Your task to perform on an android device: turn on priority inbox in the gmail app Image 0: 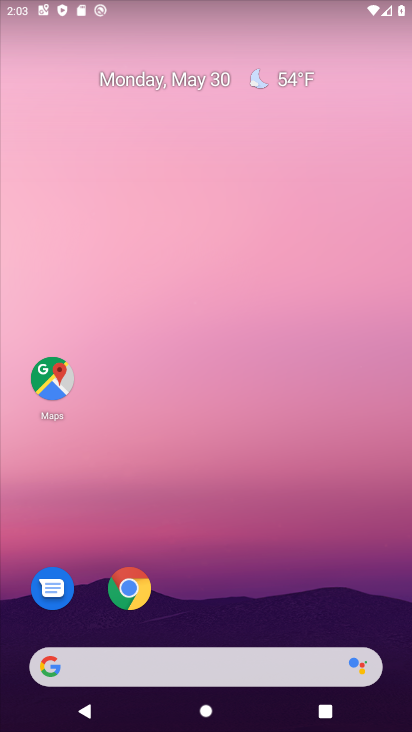
Step 0: drag from (219, 596) to (230, 2)
Your task to perform on an android device: turn on priority inbox in the gmail app Image 1: 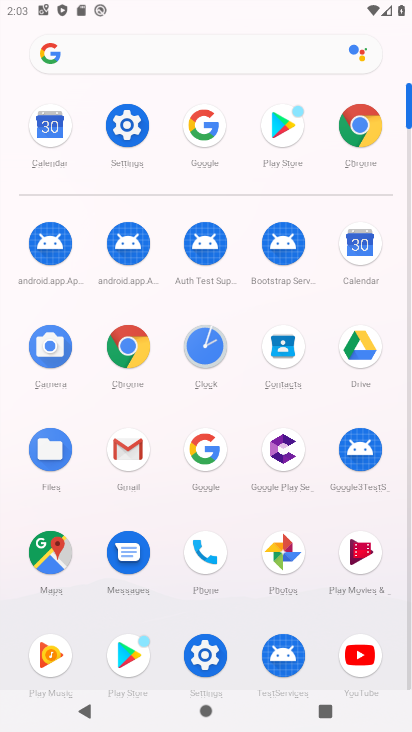
Step 1: click (127, 452)
Your task to perform on an android device: turn on priority inbox in the gmail app Image 2: 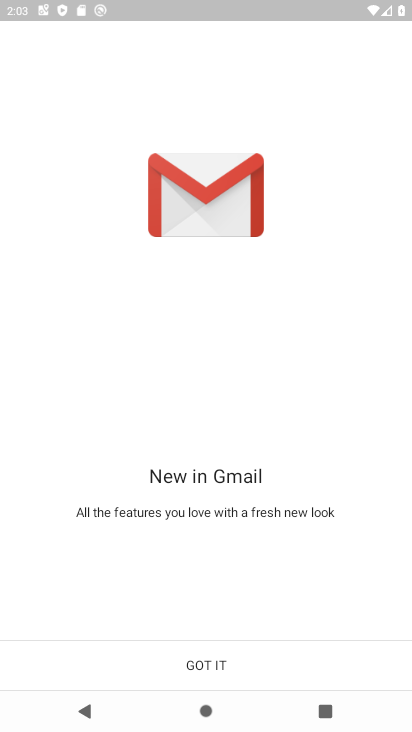
Step 2: click (228, 674)
Your task to perform on an android device: turn on priority inbox in the gmail app Image 3: 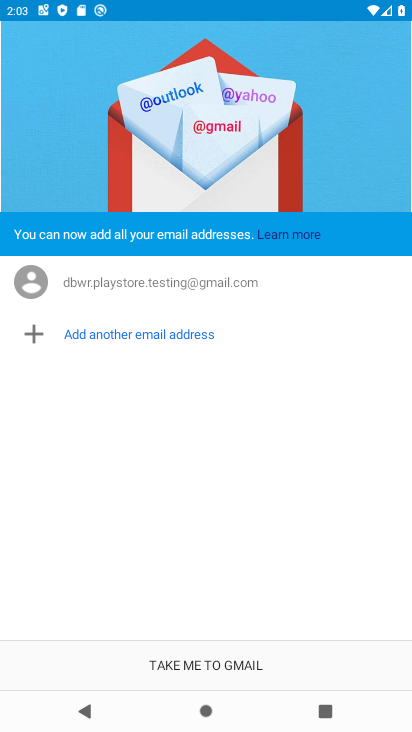
Step 3: click (219, 663)
Your task to perform on an android device: turn on priority inbox in the gmail app Image 4: 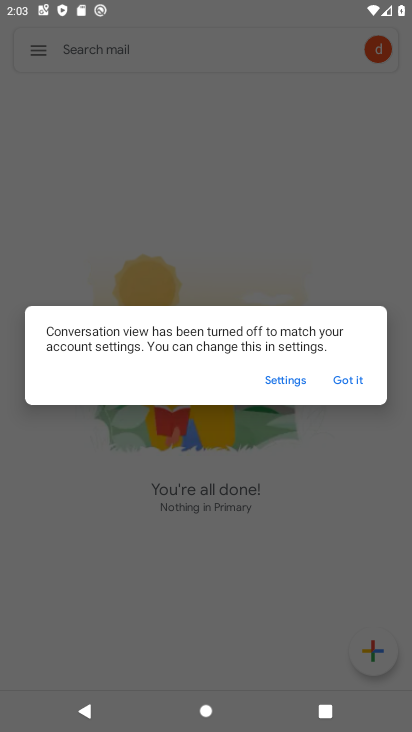
Step 4: click (287, 382)
Your task to perform on an android device: turn on priority inbox in the gmail app Image 5: 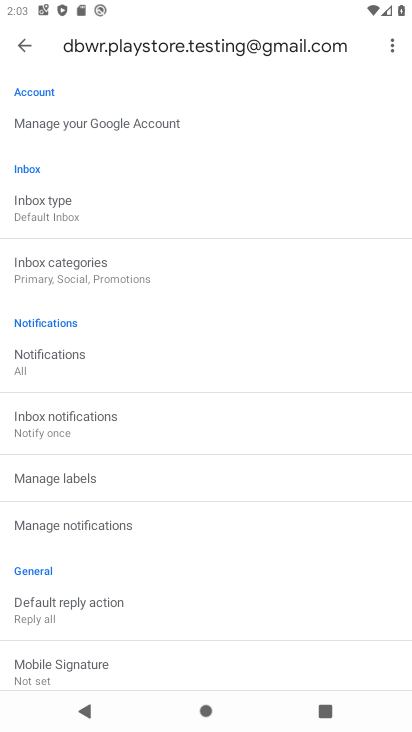
Step 5: drag from (195, 585) to (191, 442)
Your task to perform on an android device: turn on priority inbox in the gmail app Image 6: 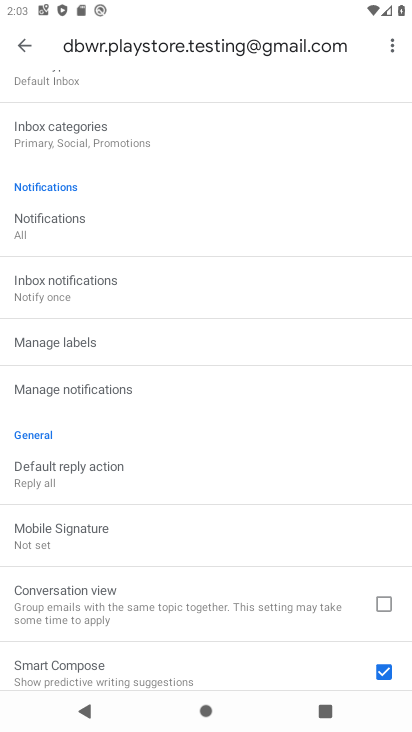
Step 6: drag from (94, 160) to (135, 317)
Your task to perform on an android device: turn on priority inbox in the gmail app Image 7: 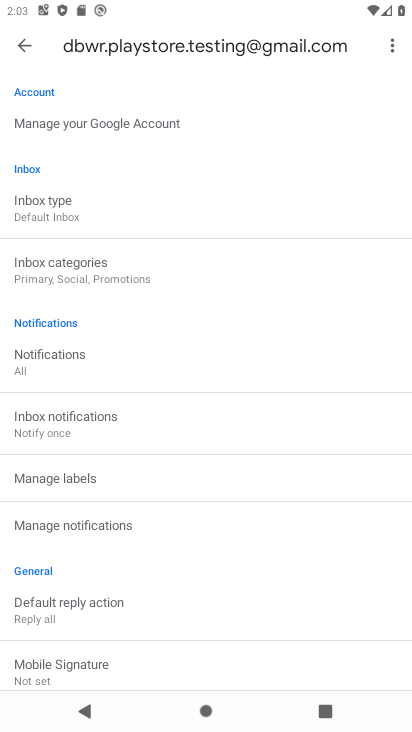
Step 7: click (76, 211)
Your task to perform on an android device: turn on priority inbox in the gmail app Image 8: 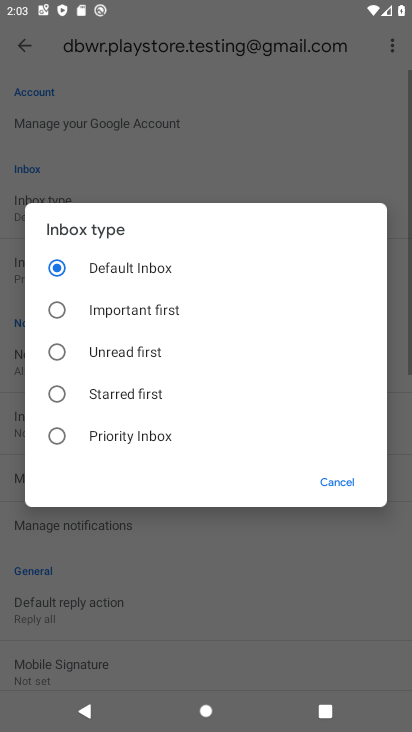
Step 8: click (56, 442)
Your task to perform on an android device: turn on priority inbox in the gmail app Image 9: 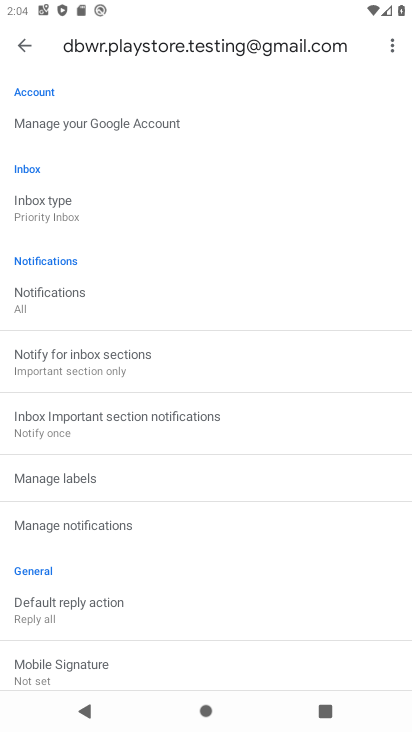
Step 9: task complete